Your task to perform on an android device: Open Maps and search for coffee Image 0: 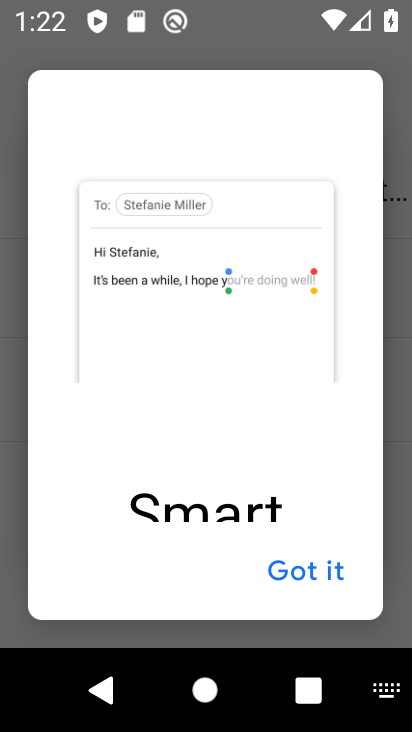
Step 0: press home button
Your task to perform on an android device: Open Maps and search for coffee Image 1: 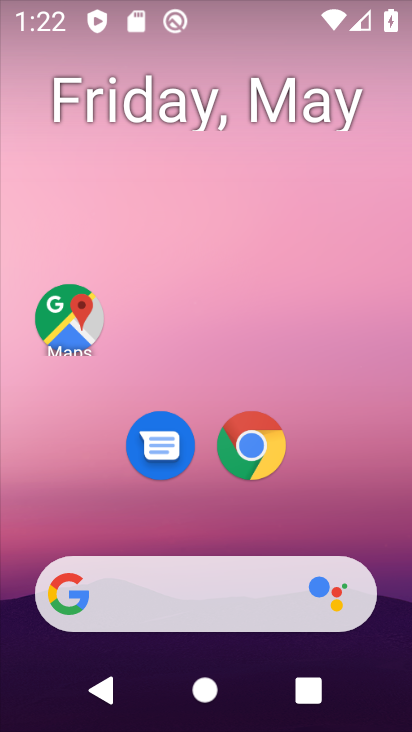
Step 1: click (62, 313)
Your task to perform on an android device: Open Maps and search for coffee Image 2: 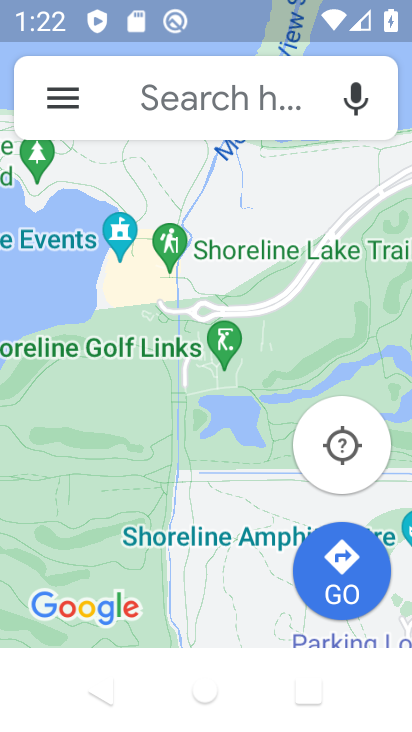
Step 2: click (171, 93)
Your task to perform on an android device: Open Maps and search for coffee Image 3: 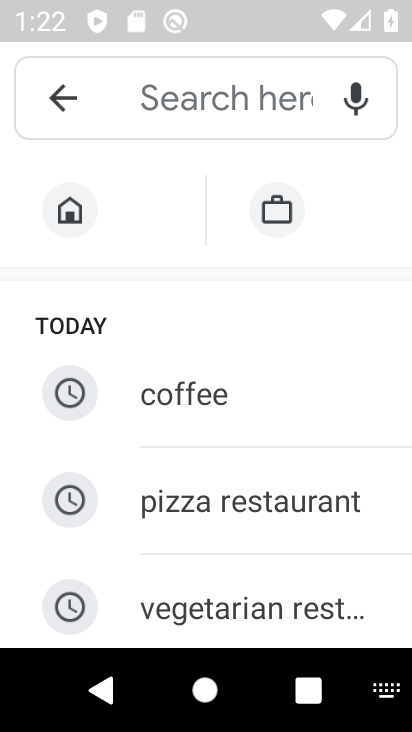
Step 3: type "coffee"
Your task to perform on an android device: Open Maps and search for coffee Image 4: 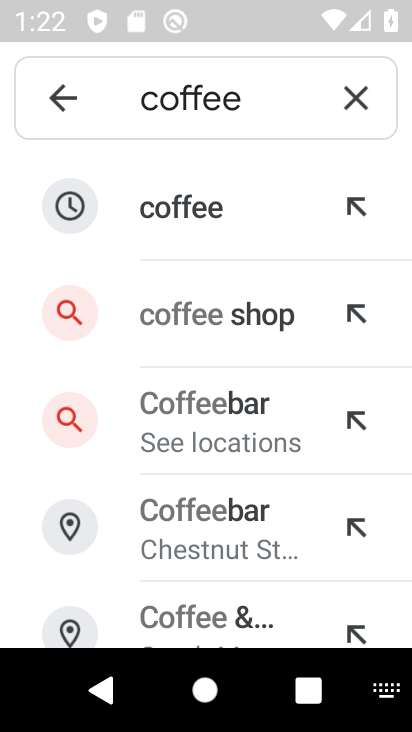
Step 4: click (205, 223)
Your task to perform on an android device: Open Maps and search for coffee Image 5: 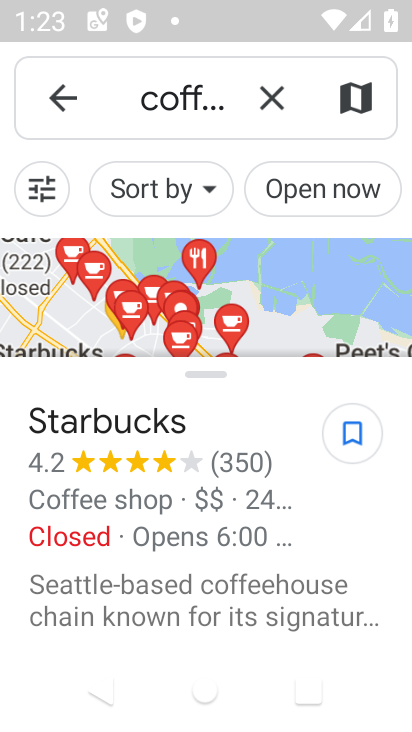
Step 5: task complete